Your task to perform on an android device: open a bookmark in the chrome app Image 0: 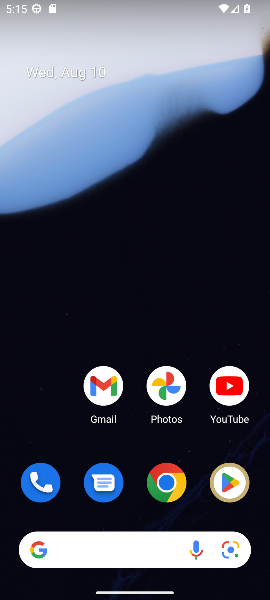
Step 0: click (168, 481)
Your task to perform on an android device: open a bookmark in the chrome app Image 1: 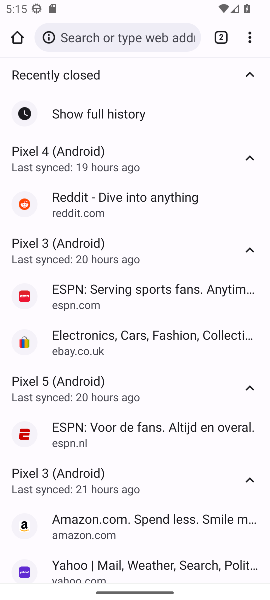
Step 1: click (250, 38)
Your task to perform on an android device: open a bookmark in the chrome app Image 2: 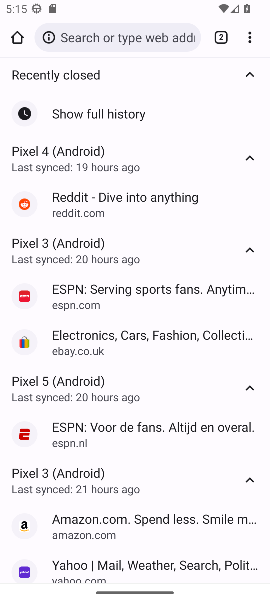
Step 2: click (250, 38)
Your task to perform on an android device: open a bookmark in the chrome app Image 3: 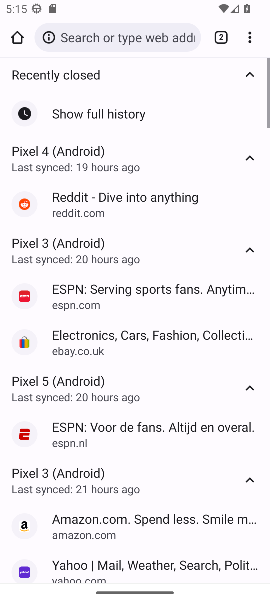
Step 3: click (250, 38)
Your task to perform on an android device: open a bookmark in the chrome app Image 4: 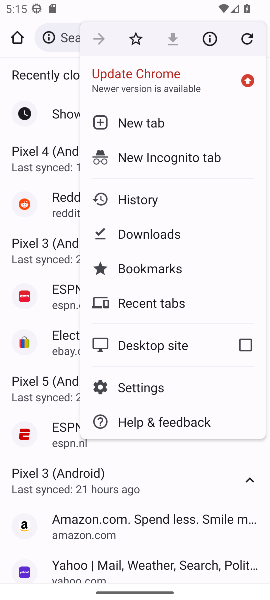
Step 4: click (160, 262)
Your task to perform on an android device: open a bookmark in the chrome app Image 5: 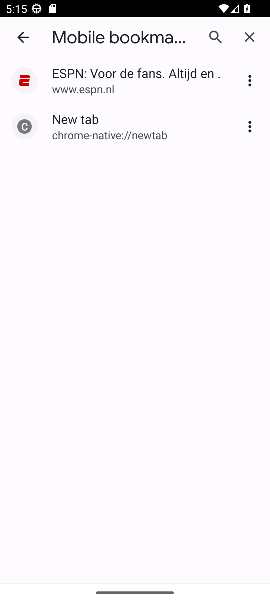
Step 5: click (159, 75)
Your task to perform on an android device: open a bookmark in the chrome app Image 6: 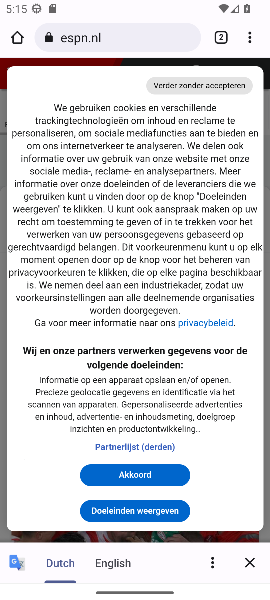
Step 6: click (111, 562)
Your task to perform on an android device: open a bookmark in the chrome app Image 7: 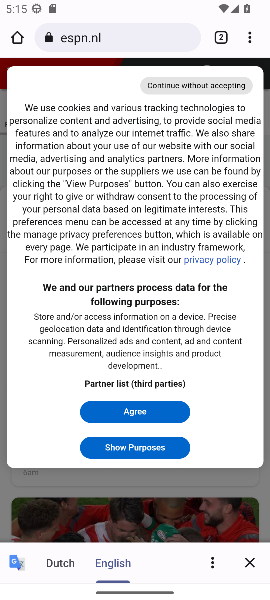
Step 7: click (171, 415)
Your task to perform on an android device: open a bookmark in the chrome app Image 8: 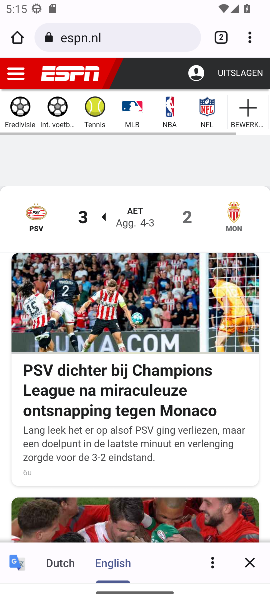
Step 8: task complete